Your task to perform on an android device: turn off sleep mode Image 0: 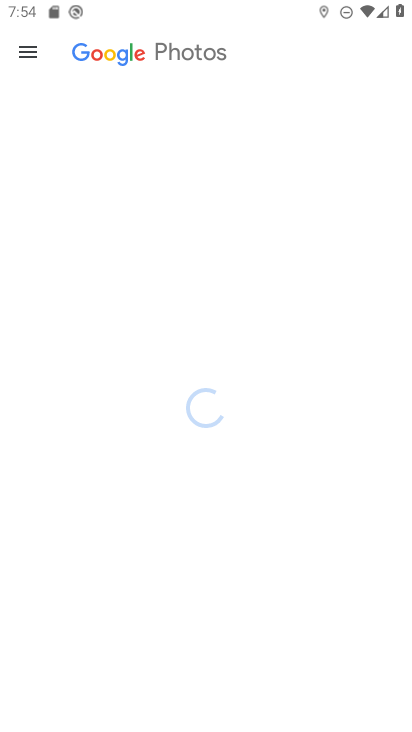
Step 0: press home button
Your task to perform on an android device: turn off sleep mode Image 1: 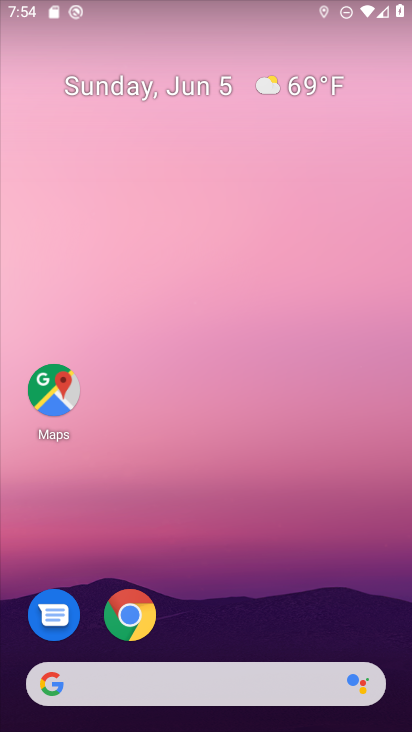
Step 1: drag from (175, 624) to (178, 66)
Your task to perform on an android device: turn off sleep mode Image 2: 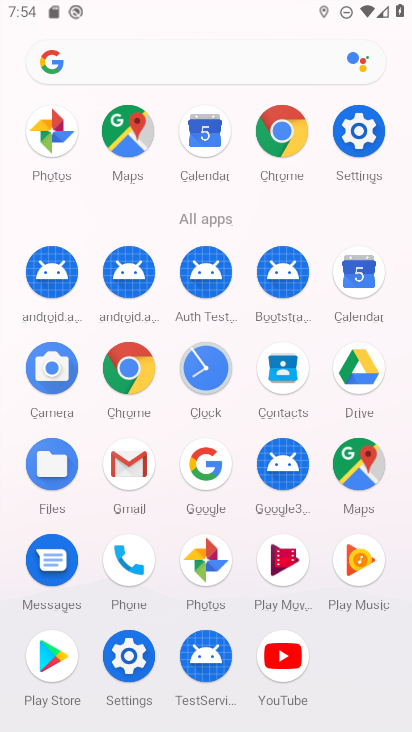
Step 2: click (362, 133)
Your task to perform on an android device: turn off sleep mode Image 3: 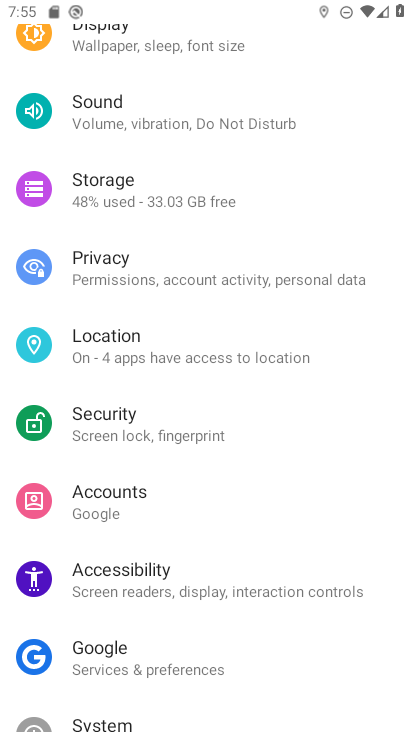
Step 3: task complete